Your task to perform on an android device: Open calendar and show me the fourth week of next month Image 0: 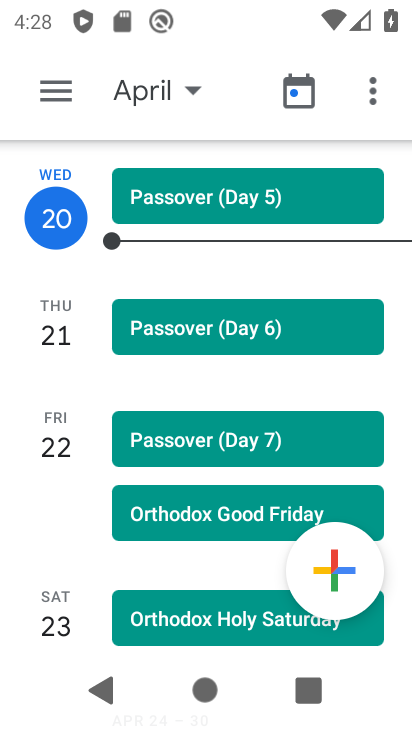
Step 0: click (138, 95)
Your task to perform on an android device: Open calendar and show me the fourth week of next month Image 1: 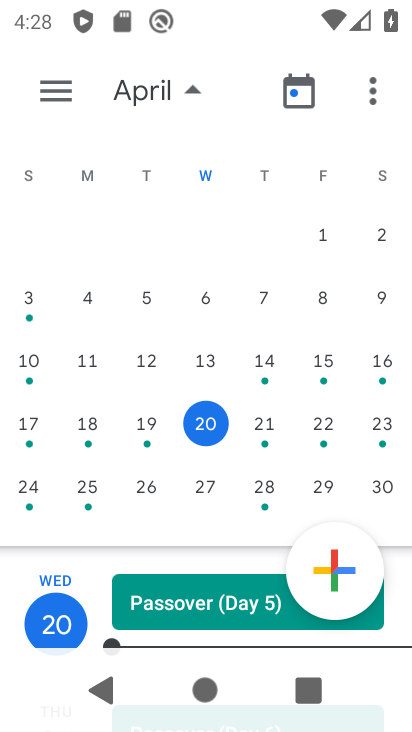
Step 1: drag from (334, 384) to (33, 337)
Your task to perform on an android device: Open calendar and show me the fourth week of next month Image 2: 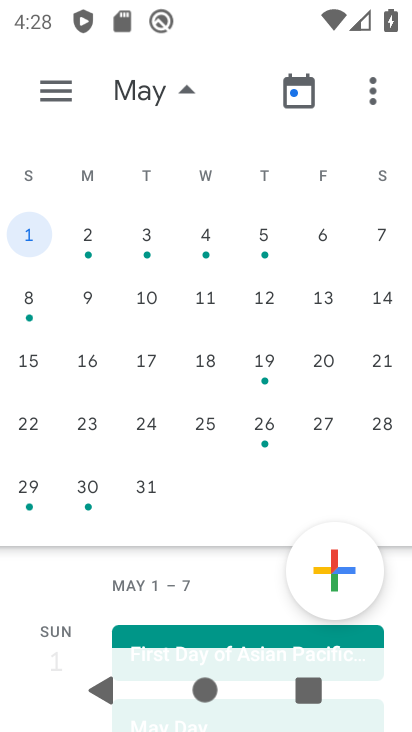
Step 2: click (38, 430)
Your task to perform on an android device: Open calendar and show me the fourth week of next month Image 3: 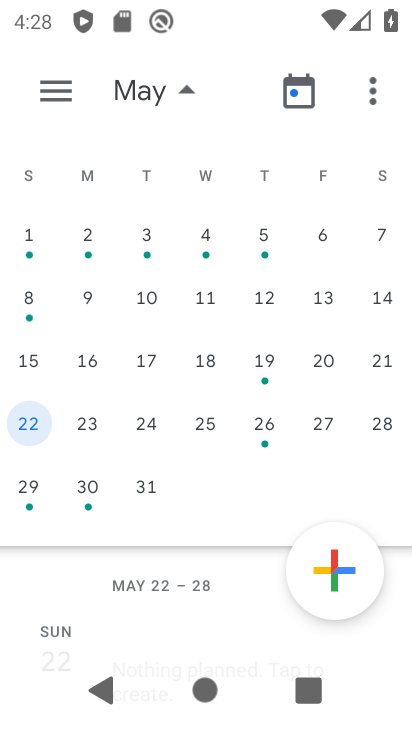
Step 3: click (64, 86)
Your task to perform on an android device: Open calendar and show me the fourth week of next month Image 4: 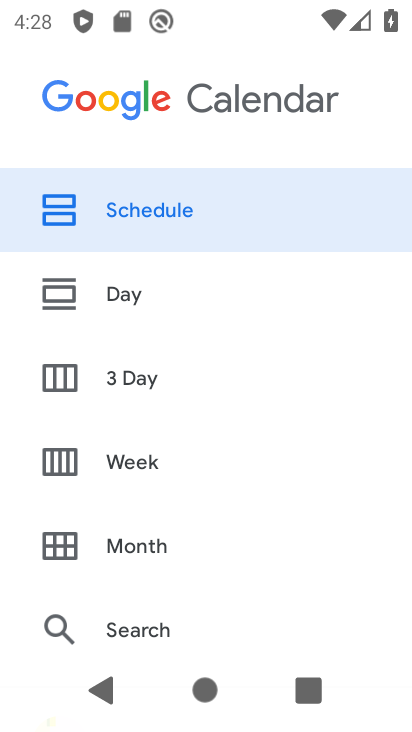
Step 4: click (181, 471)
Your task to perform on an android device: Open calendar and show me the fourth week of next month Image 5: 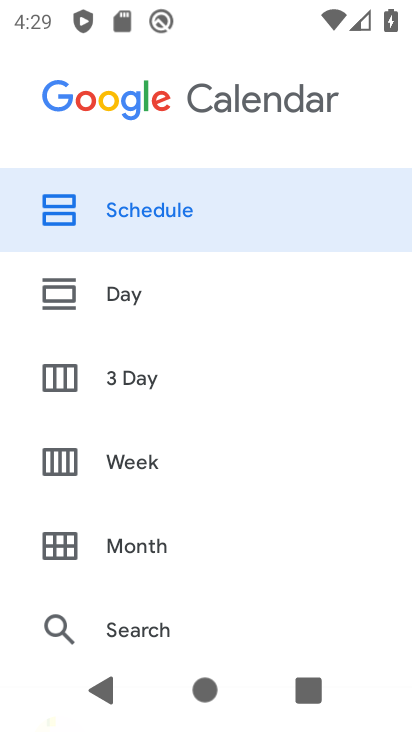
Step 5: click (166, 470)
Your task to perform on an android device: Open calendar and show me the fourth week of next month Image 6: 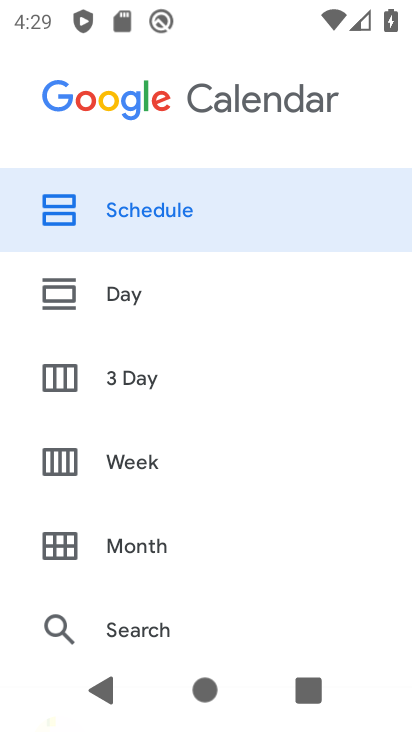
Step 6: click (162, 460)
Your task to perform on an android device: Open calendar and show me the fourth week of next month Image 7: 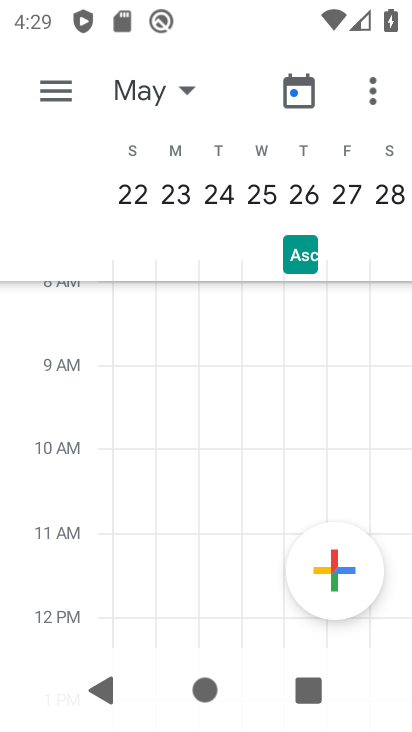
Step 7: task complete